Your task to perform on an android device: change the clock style Image 0: 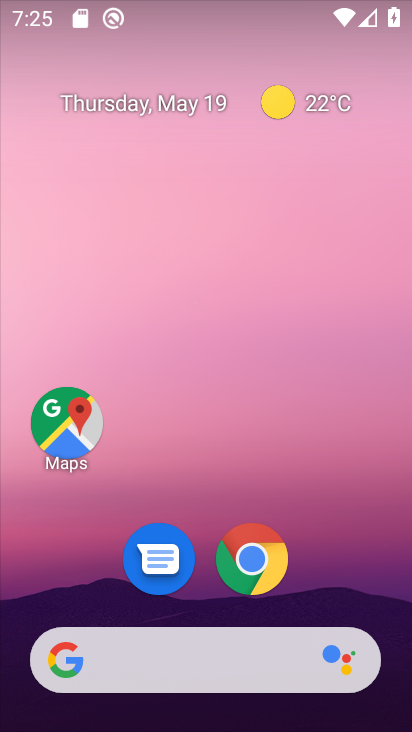
Step 0: drag from (349, 586) to (257, 12)
Your task to perform on an android device: change the clock style Image 1: 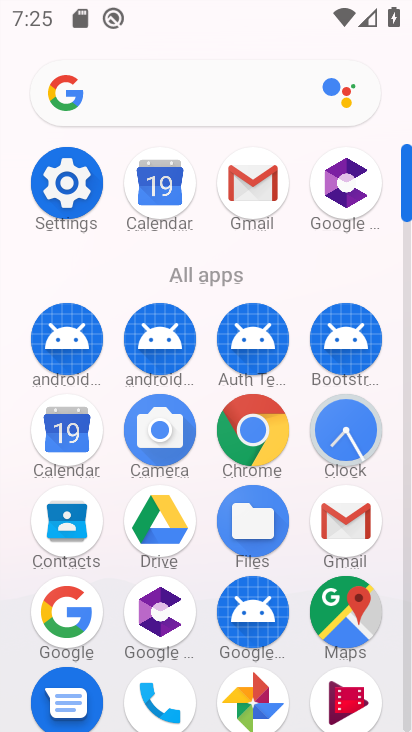
Step 1: click (336, 421)
Your task to perform on an android device: change the clock style Image 2: 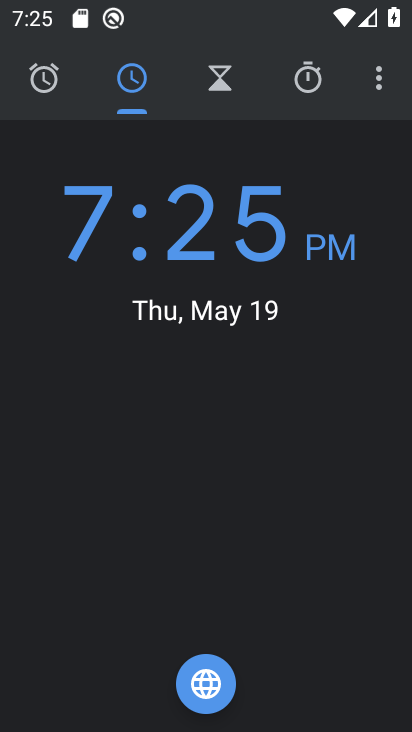
Step 2: click (383, 85)
Your task to perform on an android device: change the clock style Image 3: 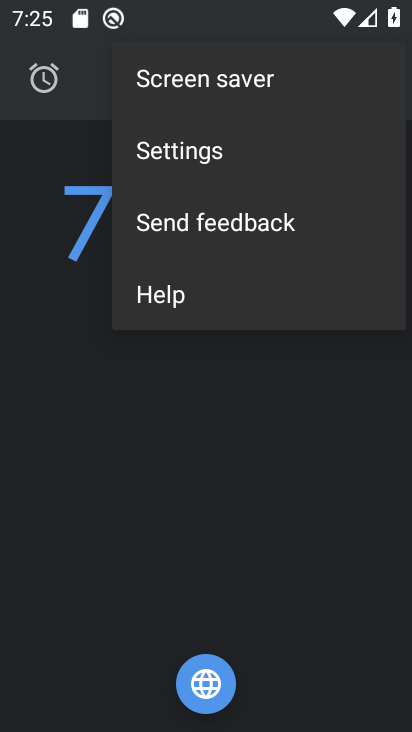
Step 3: click (269, 156)
Your task to perform on an android device: change the clock style Image 4: 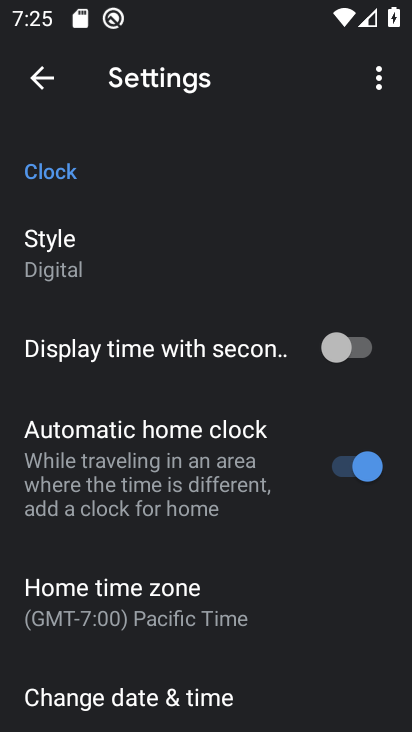
Step 4: click (89, 254)
Your task to perform on an android device: change the clock style Image 5: 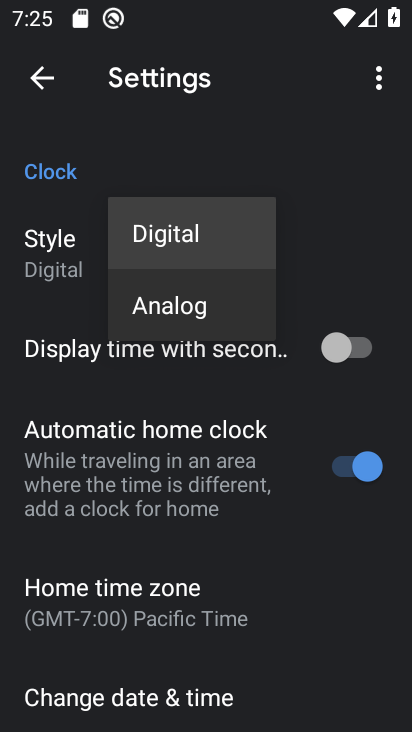
Step 5: click (153, 297)
Your task to perform on an android device: change the clock style Image 6: 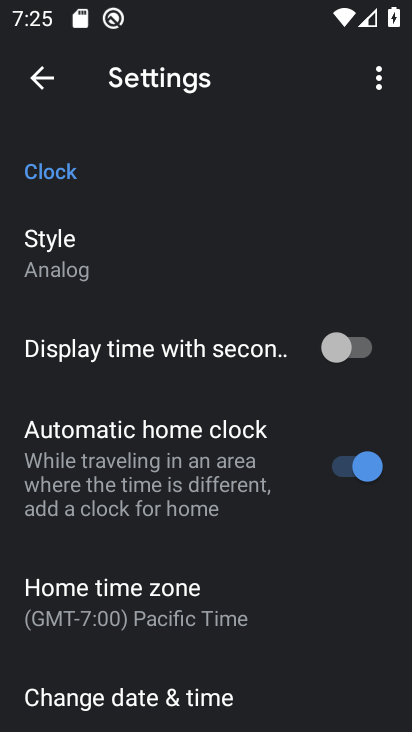
Step 6: task complete